Your task to perform on an android device: Open the stopwatch Image 0: 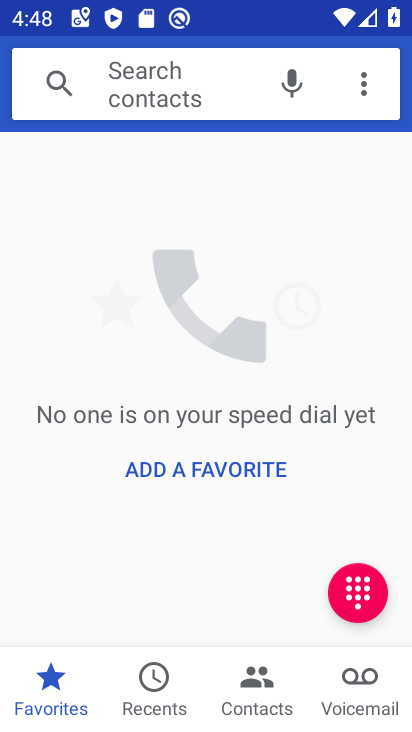
Step 0: press back button
Your task to perform on an android device: Open the stopwatch Image 1: 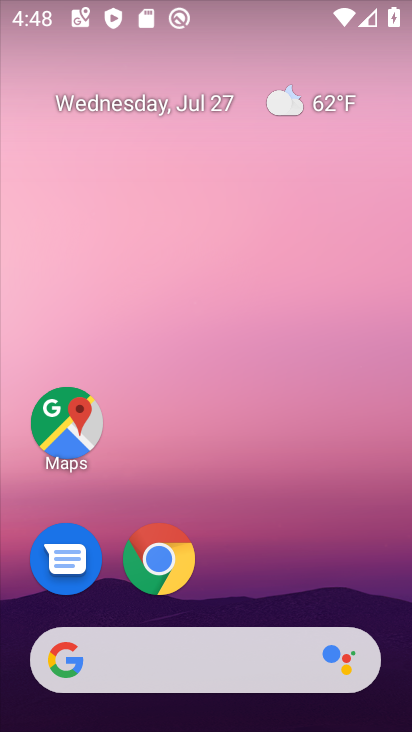
Step 1: drag from (280, 610) to (315, 70)
Your task to perform on an android device: Open the stopwatch Image 2: 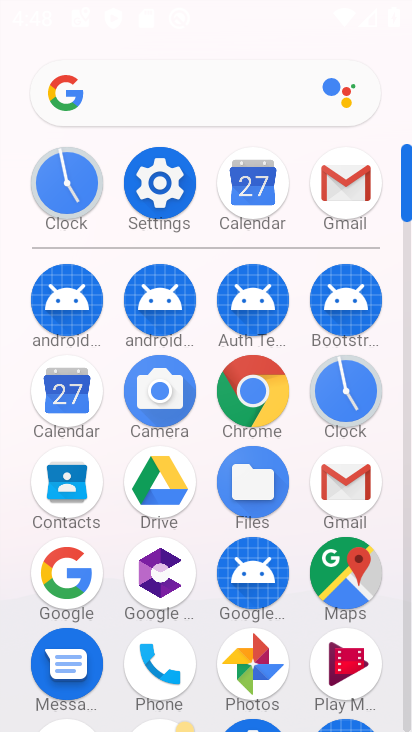
Step 2: click (334, 392)
Your task to perform on an android device: Open the stopwatch Image 3: 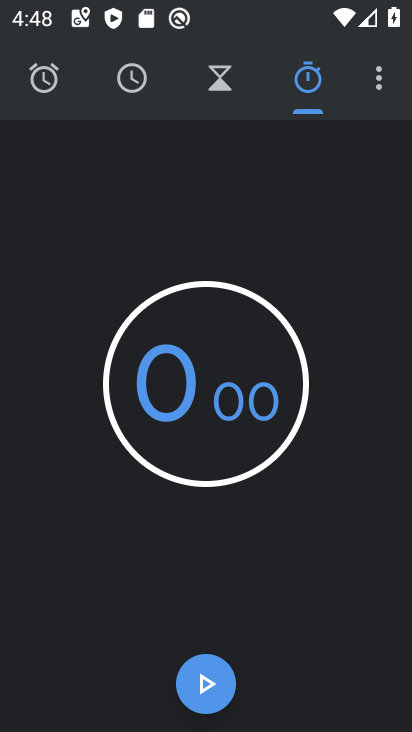
Step 3: task complete